Your task to perform on an android device: Open ESPN.com Image 0: 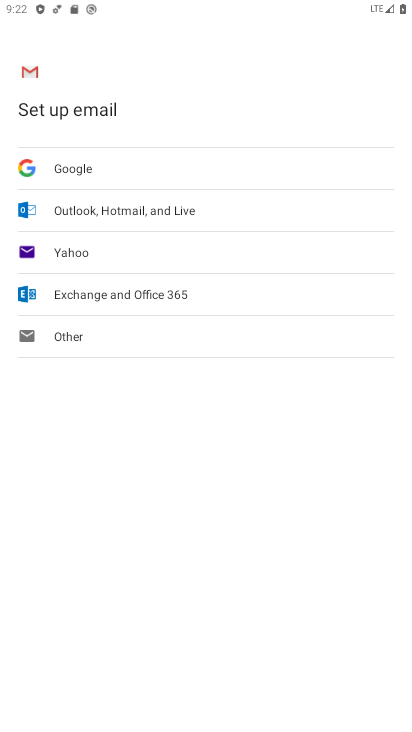
Step 0: press home button
Your task to perform on an android device: Open ESPN.com Image 1: 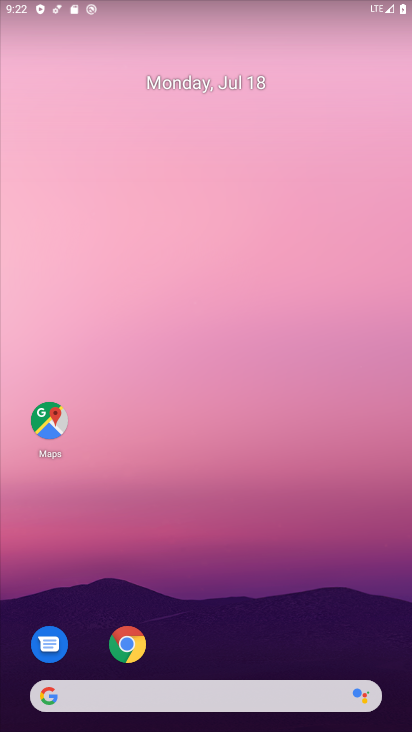
Step 1: drag from (321, 641) to (376, 107)
Your task to perform on an android device: Open ESPN.com Image 2: 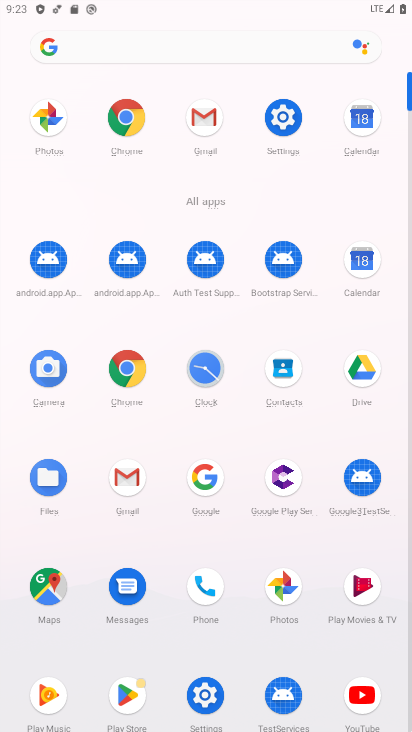
Step 2: click (129, 370)
Your task to perform on an android device: Open ESPN.com Image 3: 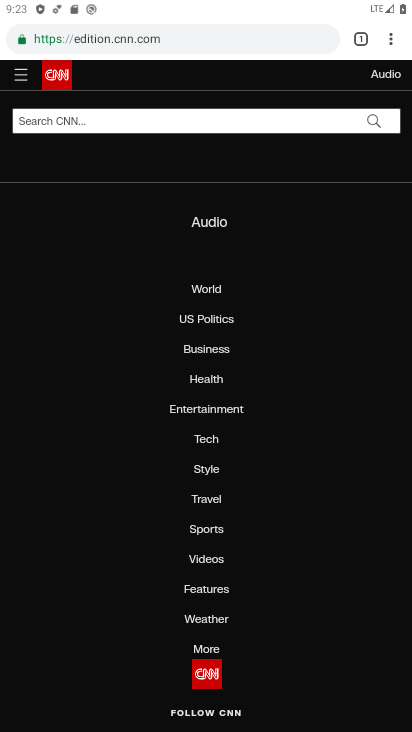
Step 3: click (238, 38)
Your task to perform on an android device: Open ESPN.com Image 4: 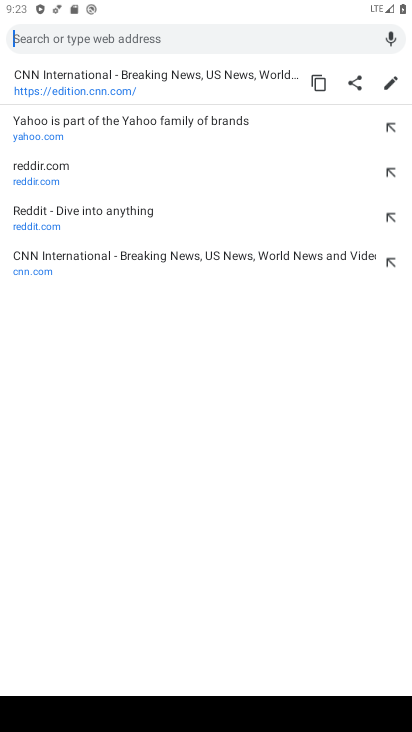
Step 4: type "espn.com"
Your task to perform on an android device: Open ESPN.com Image 5: 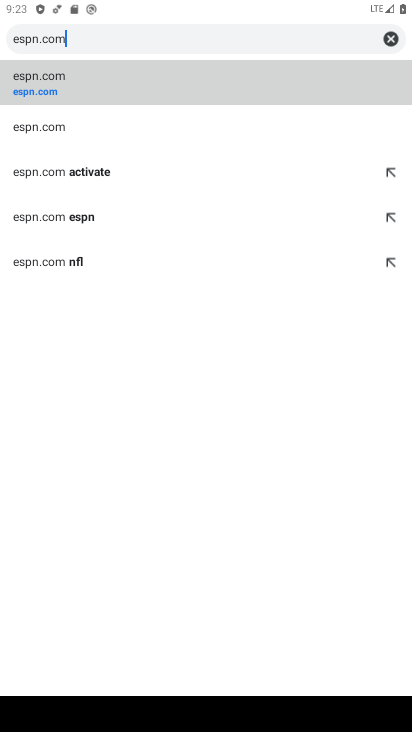
Step 5: click (136, 87)
Your task to perform on an android device: Open ESPN.com Image 6: 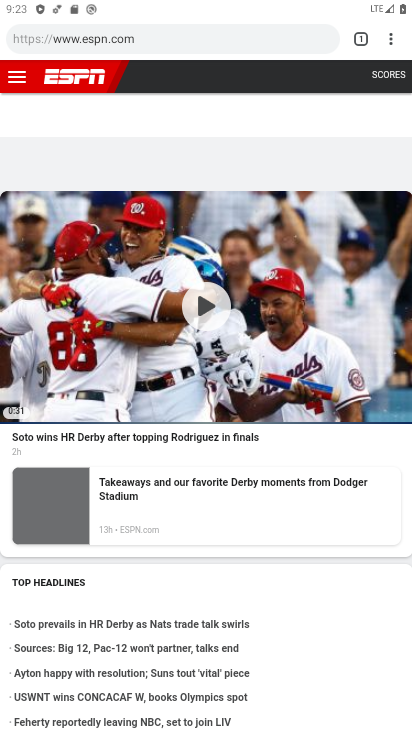
Step 6: task complete